Your task to perform on an android device: turn on translation in the chrome app Image 0: 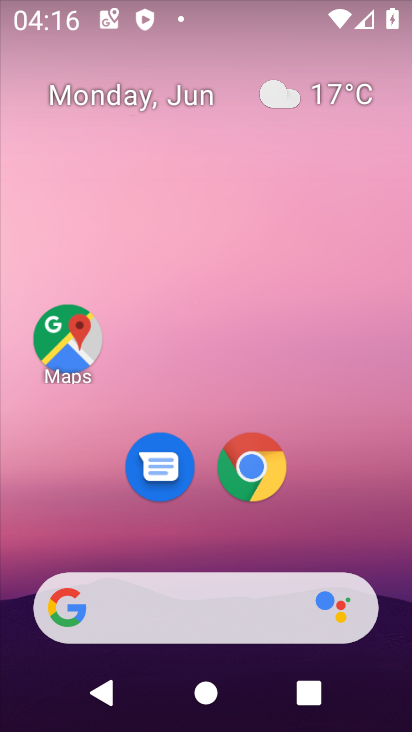
Step 0: click (255, 466)
Your task to perform on an android device: turn on translation in the chrome app Image 1: 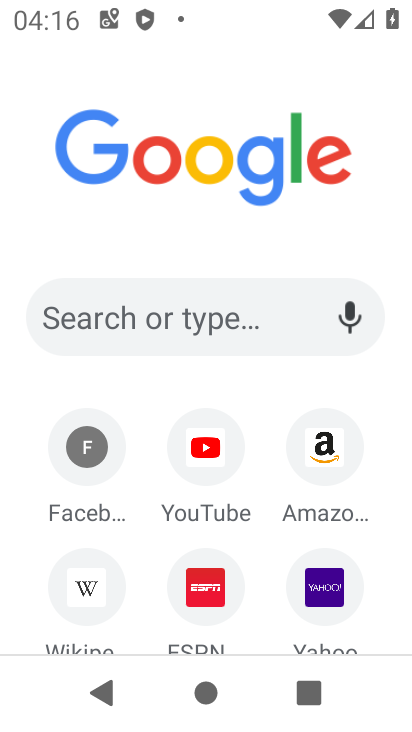
Step 1: drag from (244, 172) to (228, 692)
Your task to perform on an android device: turn on translation in the chrome app Image 2: 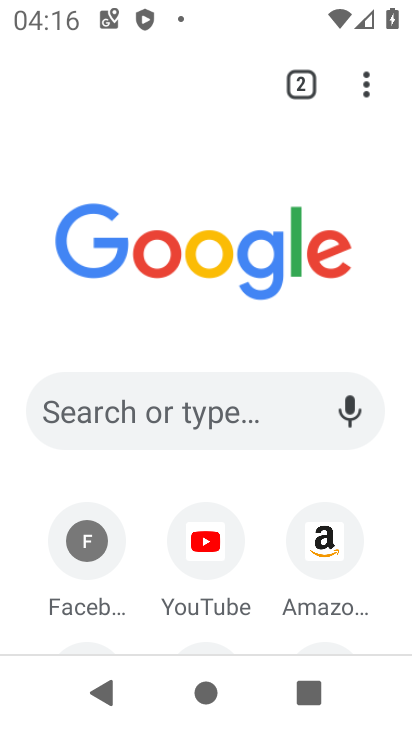
Step 2: click (368, 91)
Your task to perform on an android device: turn on translation in the chrome app Image 3: 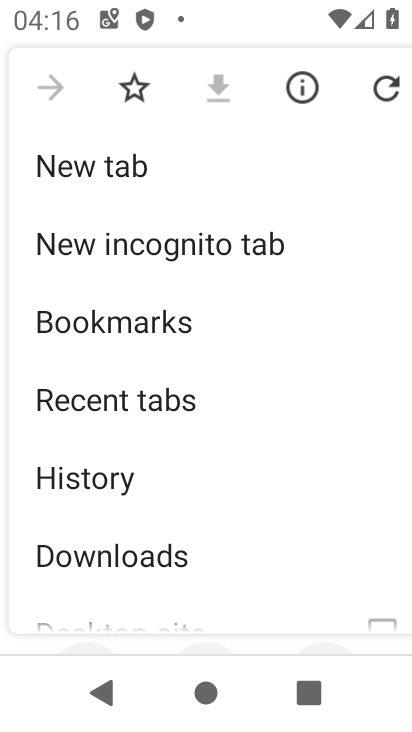
Step 3: drag from (157, 530) to (206, 51)
Your task to perform on an android device: turn on translation in the chrome app Image 4: 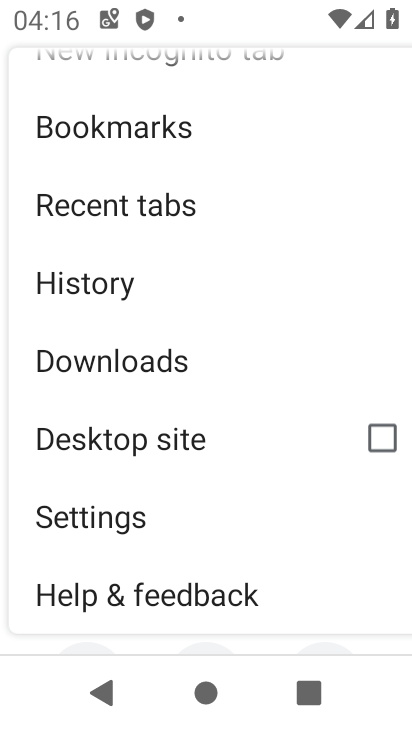
Step 4: click (127, 530)
Your task to perform on an android device: turn on translation in the chrome app Image 5: 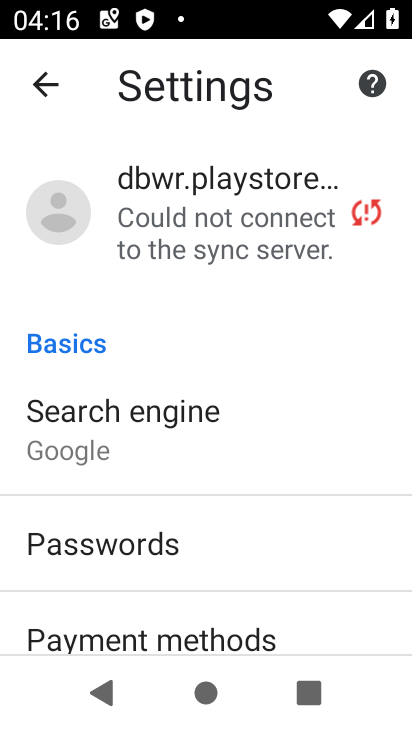
Step 5: drag from (175, 548) to (178, 136)
Your task to perform on an android device: turn on translation in the chrome app Image 6: 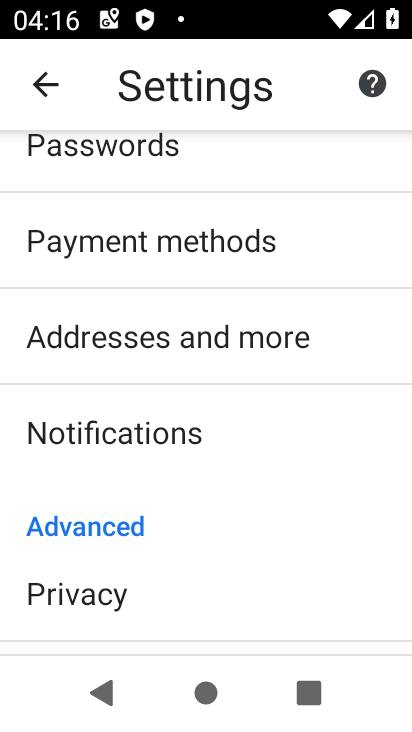
Step 6: drag from (156, 606) to (172, 299)
Your task to perform on an android device: turn on translation in the chrome app Image 7: 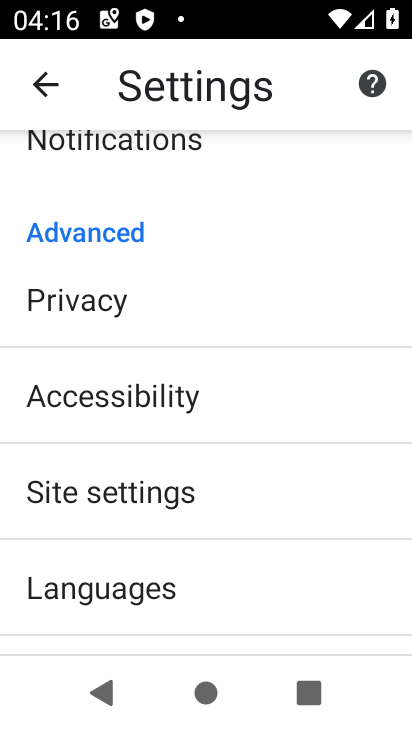
Step 7: click (123, 590)
Your task to perform on an android device: turn on translation in the chrome app Image 8: 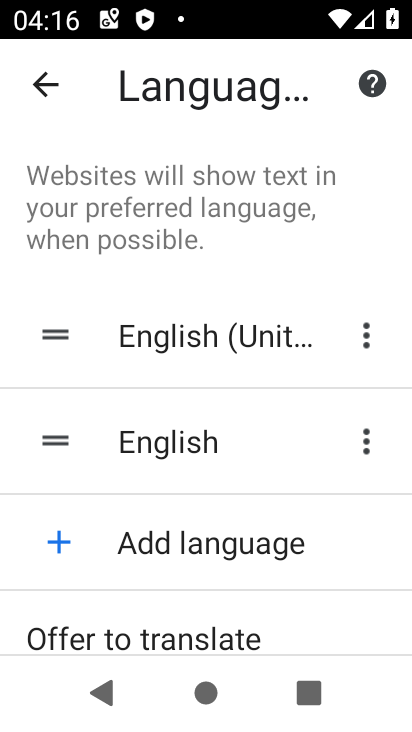
Step 8: task complete